Your task to perform on an android device: Go to Yahoo.com Image 0: 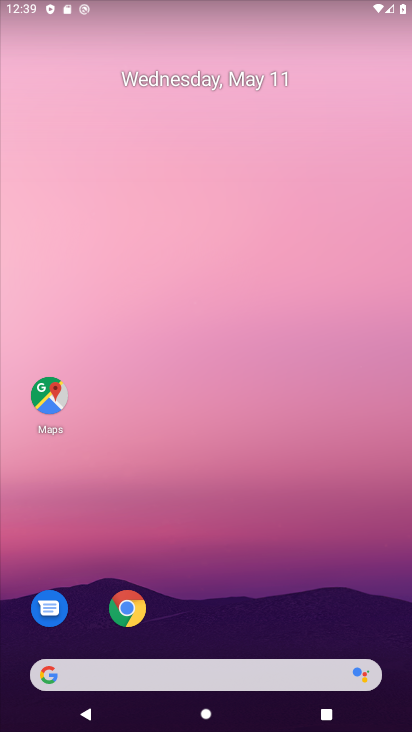
Step 0: click (133, 607)
Your task to perform on an android device: Go to Yahoo.com Image 1: 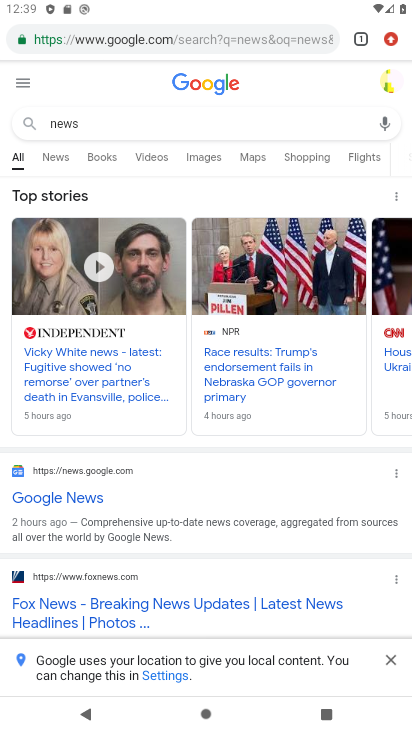
Step 1: click (162, 45)
Your task to perform on an android device: Go to Yahoo.com Image 2: 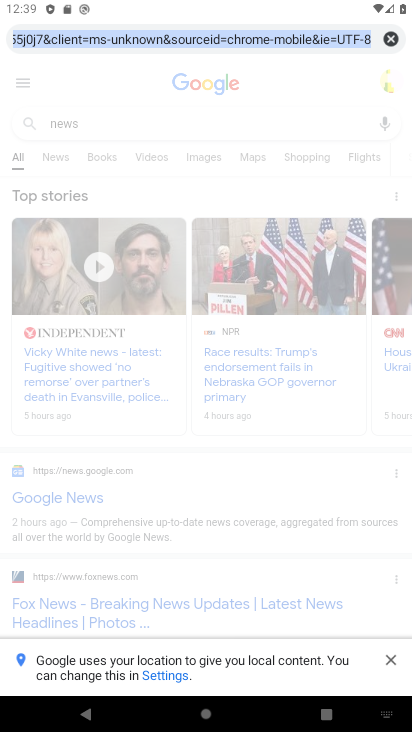
Step 2: type "yahoo.com"
Your task to perform on an android device: Go to Yahoo.com Image 3: 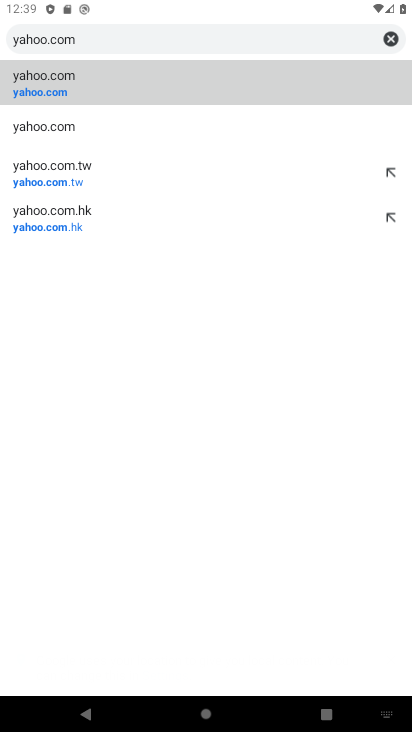
Step 3: click (92, 80)
Your task to perform on an android device: Go to Yahoo.com Image 4: 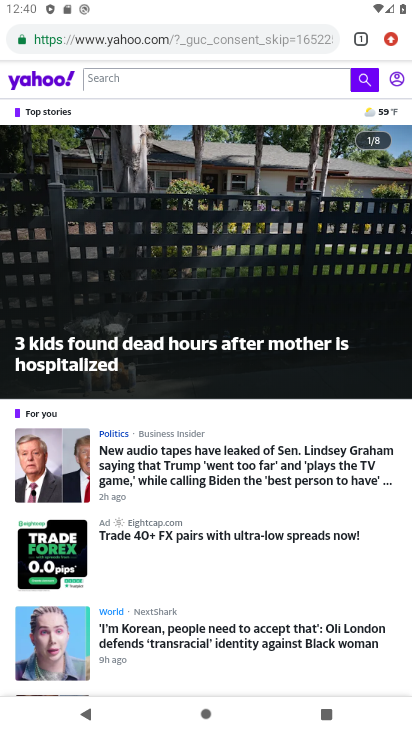
Step 4: task complete